Your task to perform on an android device: open a bookmark in the chrome app Image 0: 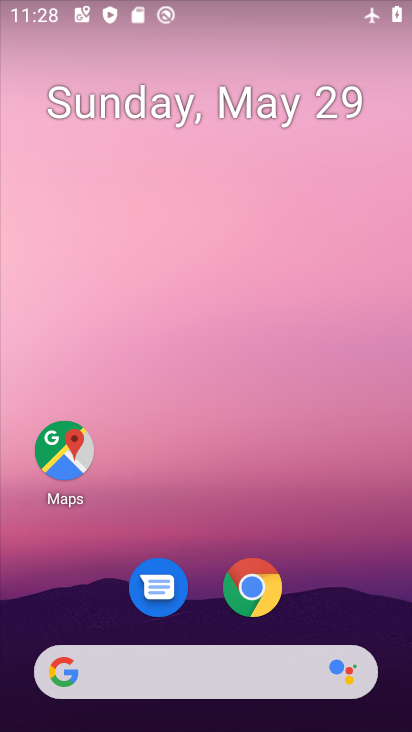
Step 0: click (248, 590)
Your task to perform on an android device: open a bookmark in the chrome app Image 1: 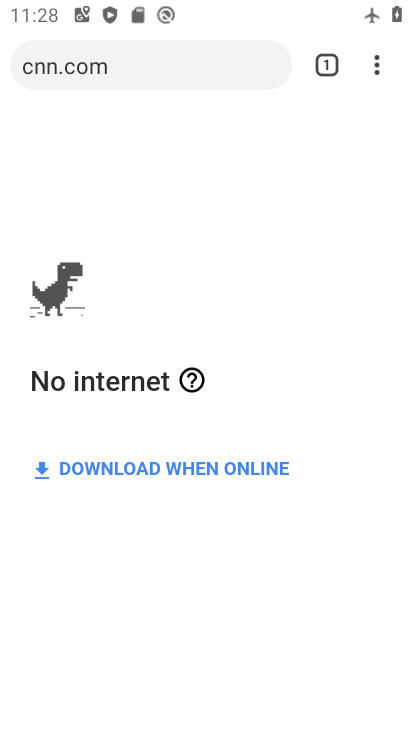
Step 1: task complete